Your task to perform on an android device: Check the news Image 0: 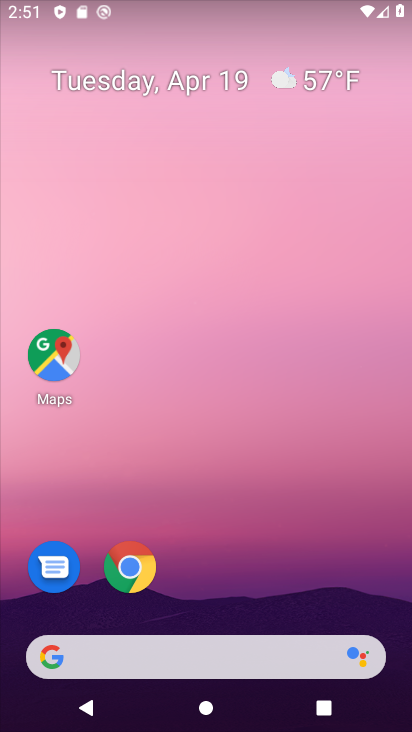
Step 0: drag from (11, 242) to (398, 252)
Your task to perform on an android device: Check the news Image 1: 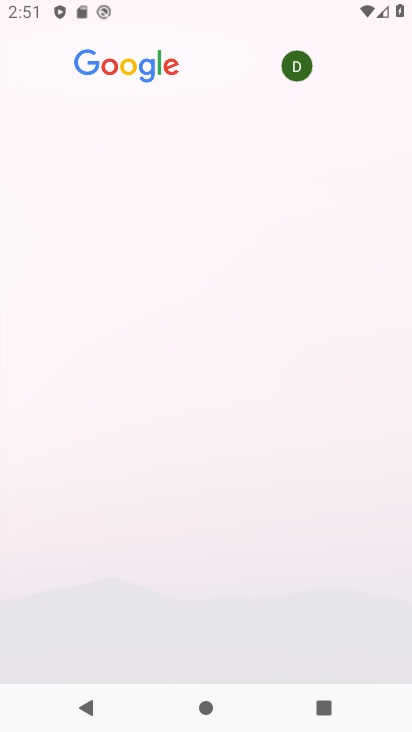
Step 1: task complete